Your task to perform on an android device: set the stopwatch Image 0: 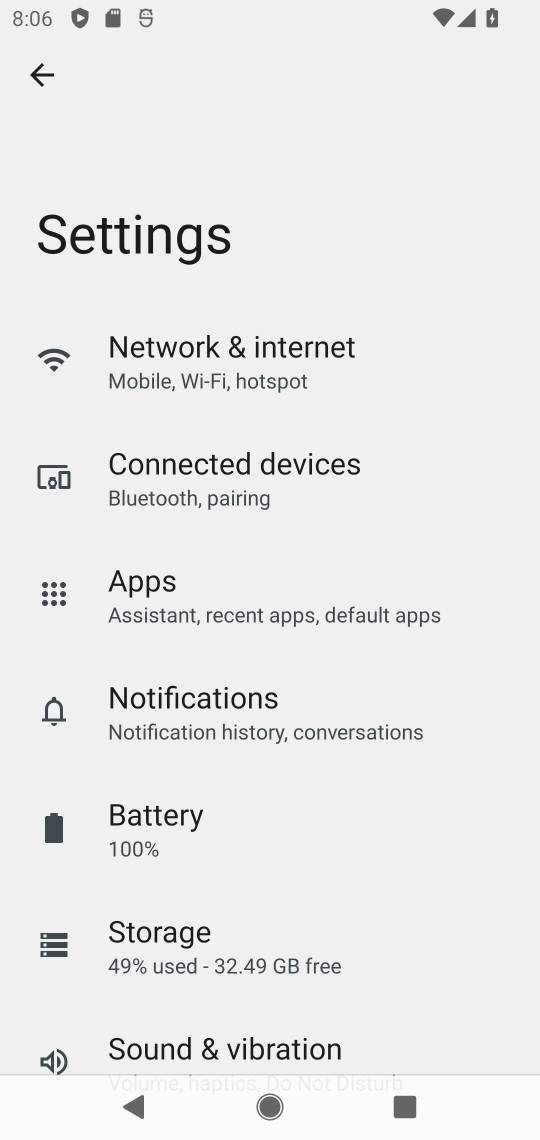
Step 0: press home button
Your task to perform on an android device: set the stopwatch Image 1: 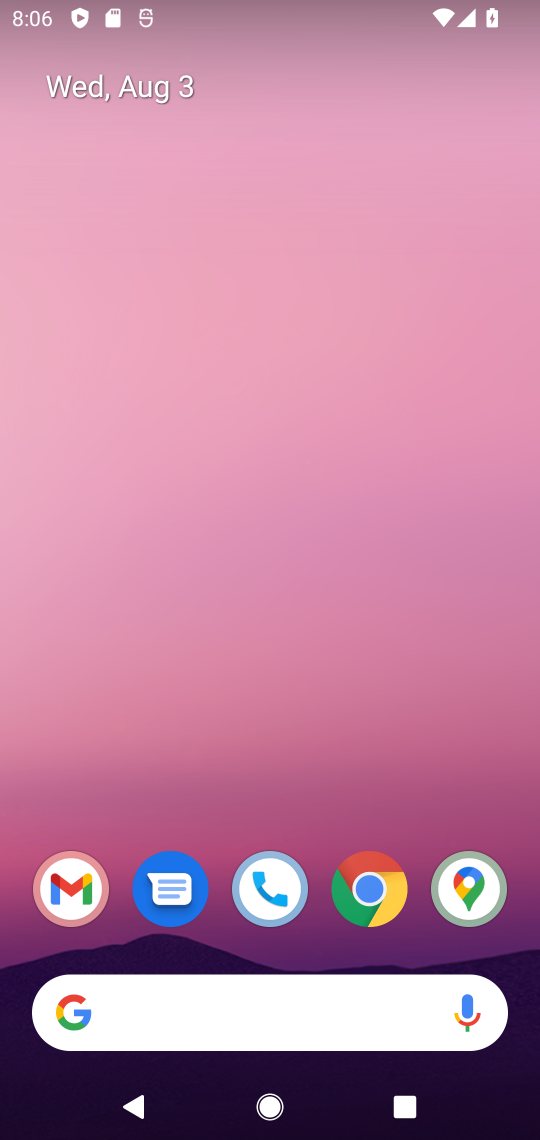
Step 1: drag from (282, 793) to (315, 86)
Your task to perform on an android device: set the stopwatch Image 2: 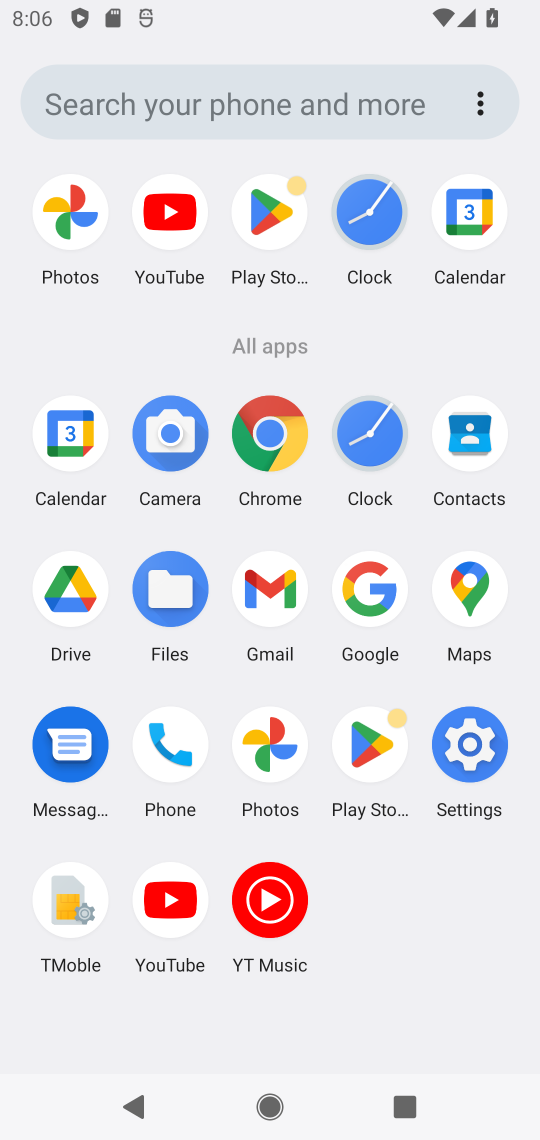
Step 2: click (369, 436)
Your task to perform on an android device: set the stopwatch Image 3: 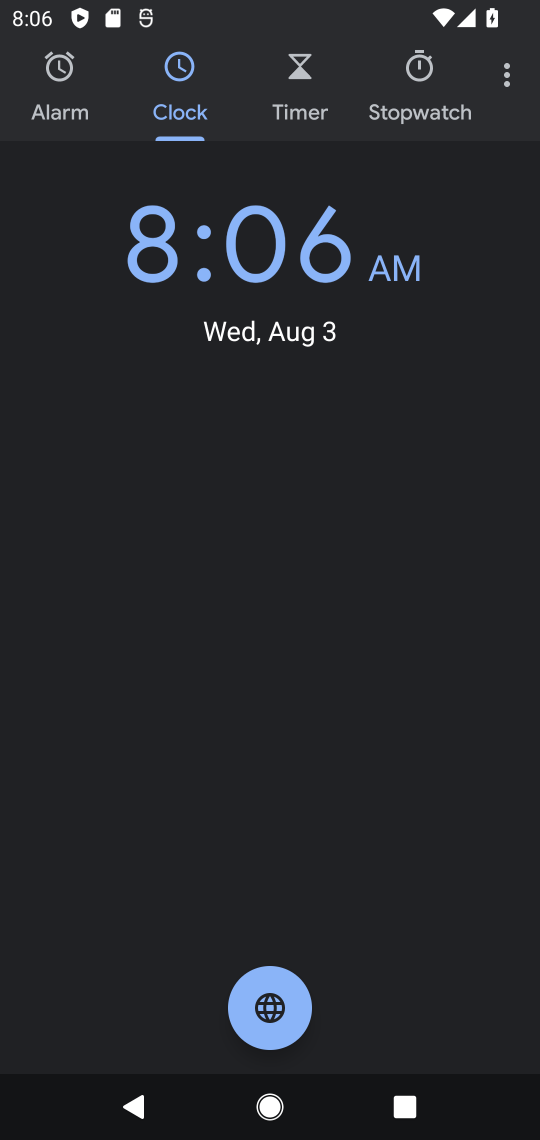
Step 3: click (418, 116)
Your task to perform on an android device: set the stopwatch Image 4: 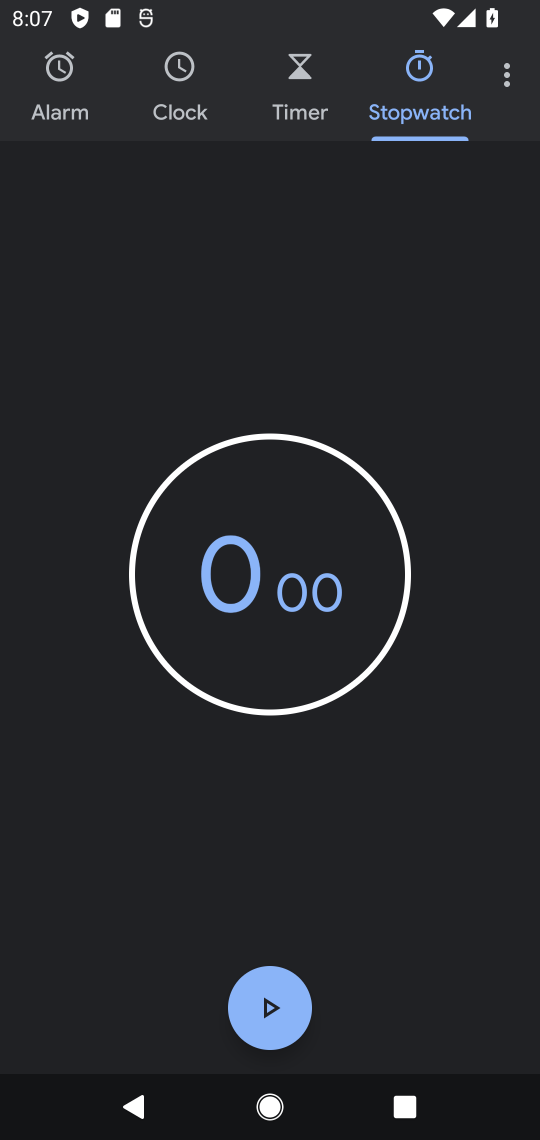
Step 4: click (263, 1021)
Your task to perform on an android device: set the stopwatch Image 5: 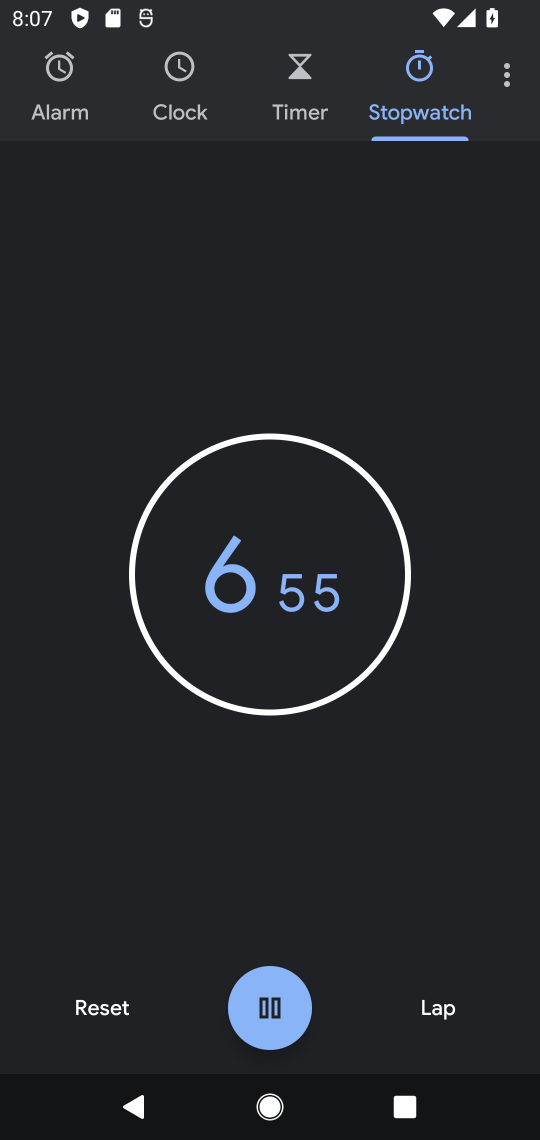
Step 5: task complete